Your task to perform on an android device: see sites visited before in the chrome app Image 0: 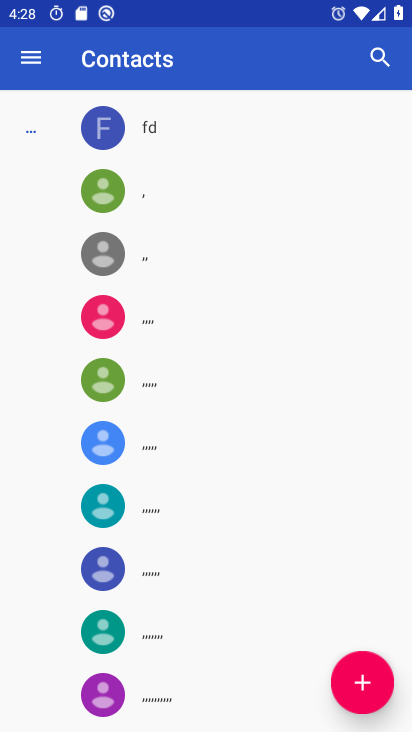
Step 0: press home button
Your task to perform on an android device: see sites visited before in the chrome app Image 1: 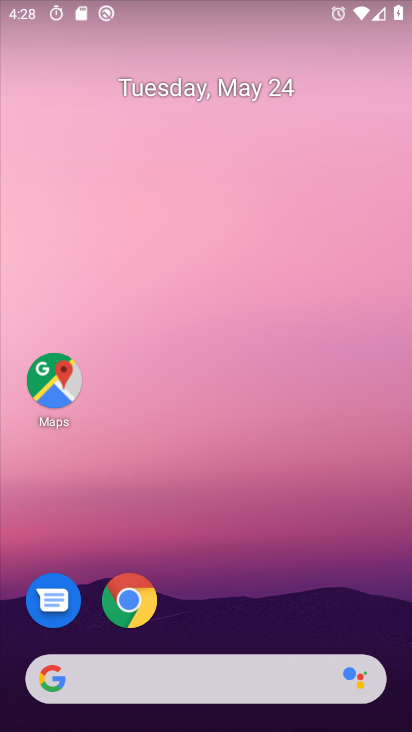
Step 1: drag from (216, 664) to (174, 20)
Your task to perform on an android device: see sites visited before in the chrome app Image 2: 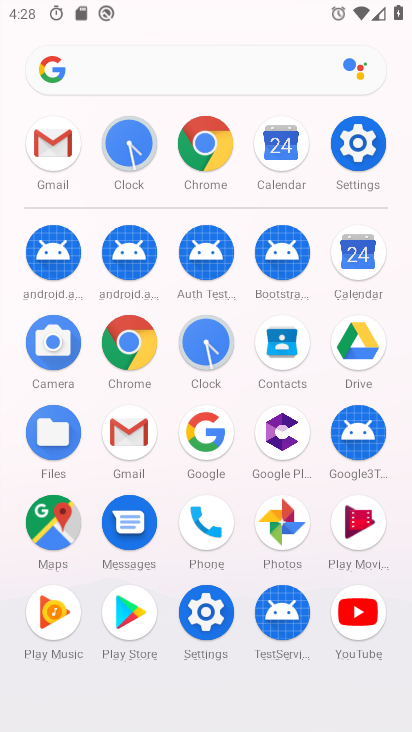
Step 2: click (121, 362)
Your task to perform on an android device: see sites visited before in the chrome app Image 3: 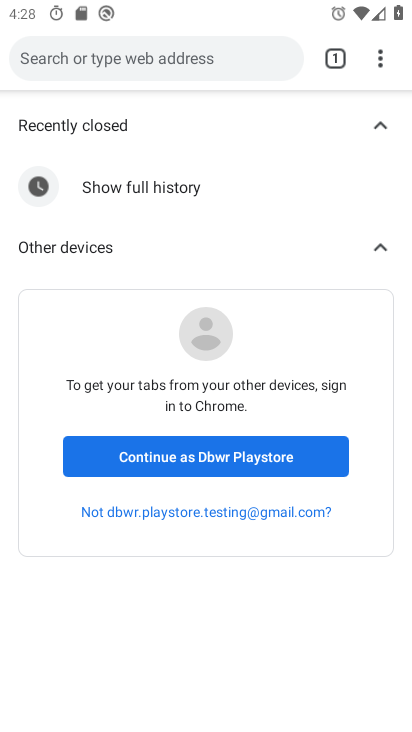
Step 3: click (385, 56)
Your task to perform on an android device: see sites visited before in the chrome app Image 4: 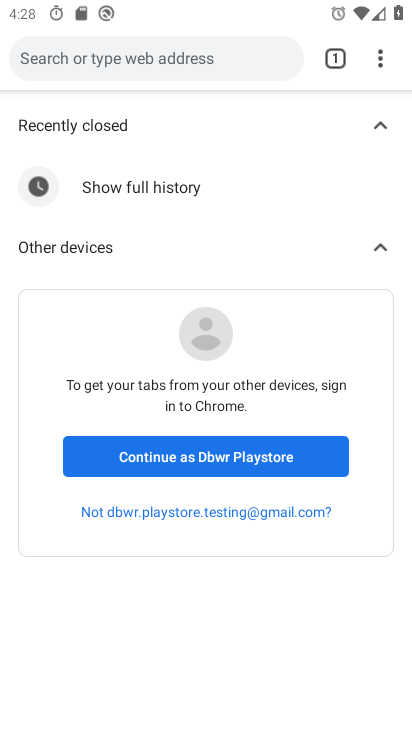
Step 4: task complete